Your task to perform on an android device: Open CNN.com Image 0: 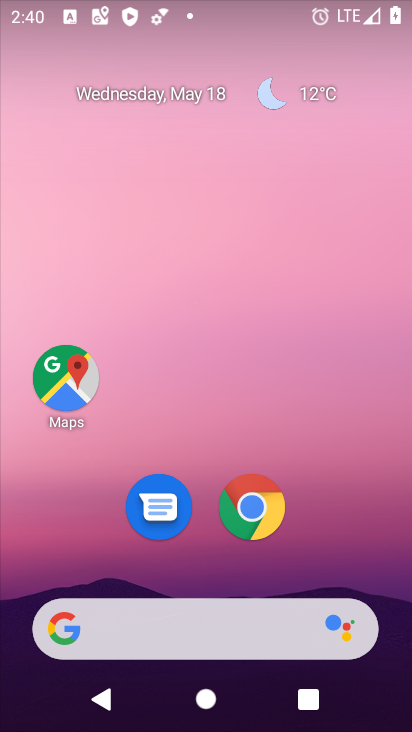
Step 0: click (255, 506)
Your task to perform on an android device: Open CNN.com Image 1: 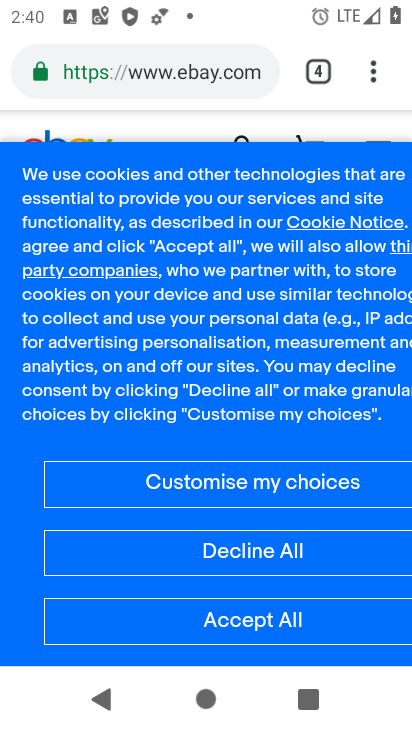
Step 1: click (136, 46)
Your task to perform on an android device: Open CNN.com Image 2: 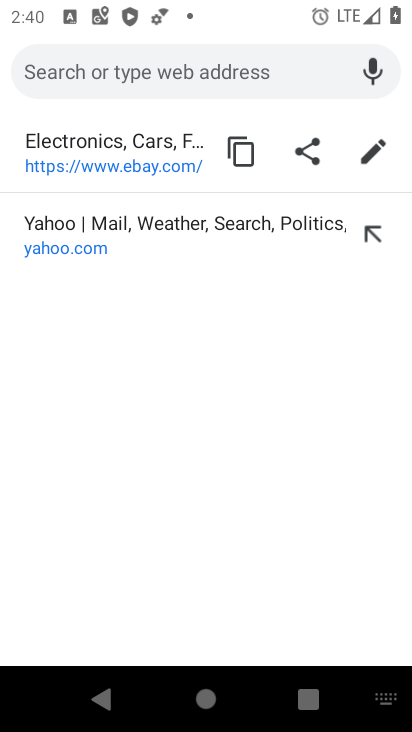
Step 2: type "cnn.com"
Your task to perform on an android device: Open CNN.com Image 3: 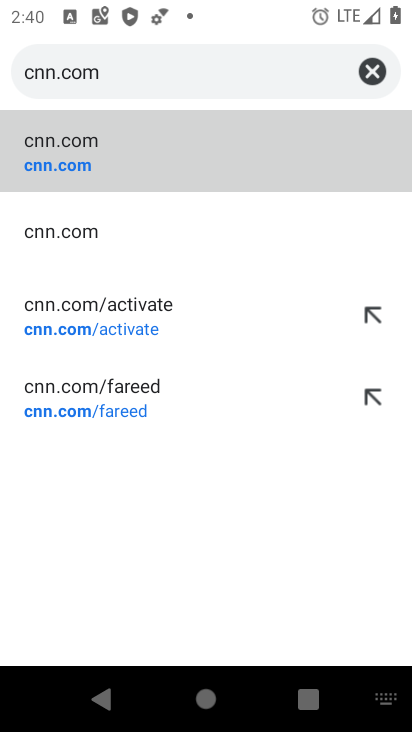
Step 3: click (72, 130)
Your task to perform on an android device: Open CNN.com Image 4: 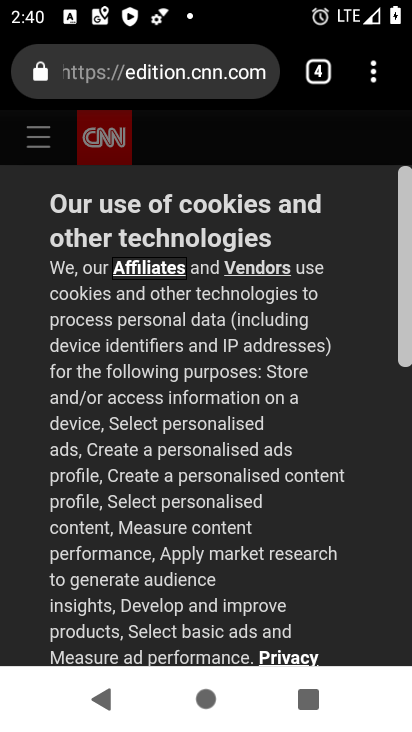
Step 4: task complete